Your task to perform on an android device: create a new album in the google photos Image 0: 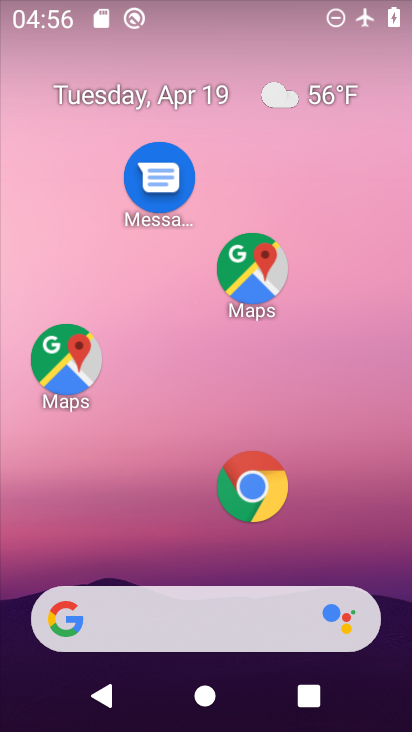
Step 0: drag from (263, 543) to (302, 111)
Your task to perform on an android device: create a new album in the google photos Image 1: 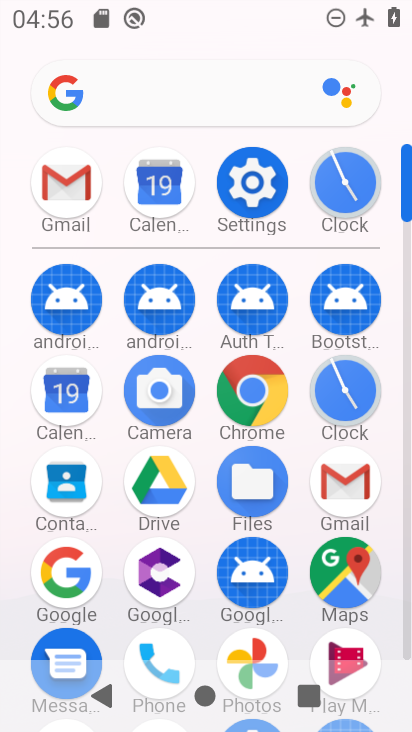
Step 1: drag from (202, 513) to (214, 302)
Your task to perform on an android device: create a new album in the google photos Image 2: 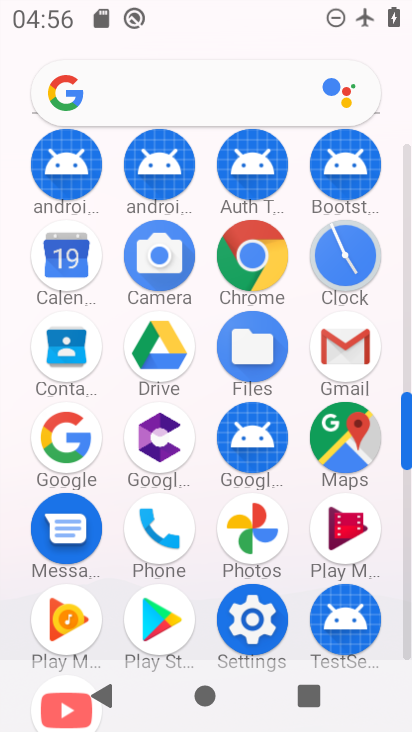
Step 2: click (264, 529)
Your task to perform on an android device: create a new album in the google photos Image 3: 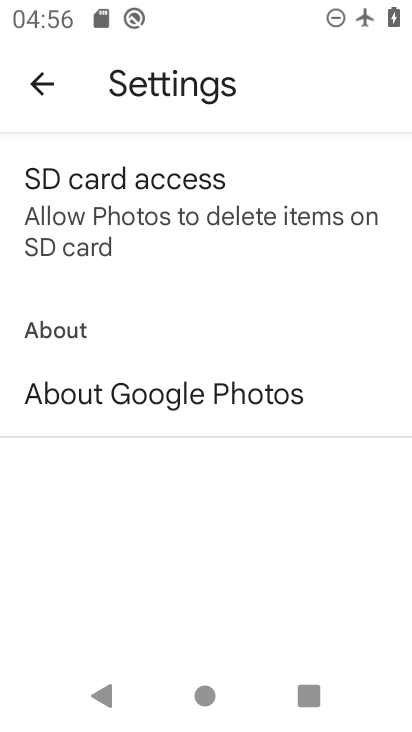
Step 3: click (32, 92)
Your task to perform on an android device: create a new album in the google photos Image 4: 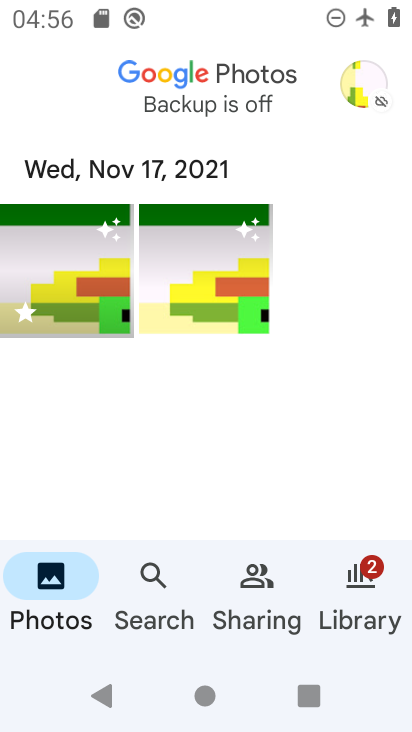
Step 4: click (369, 597)
Your task to perform on an android device: create a new album in the google photos Image 5: 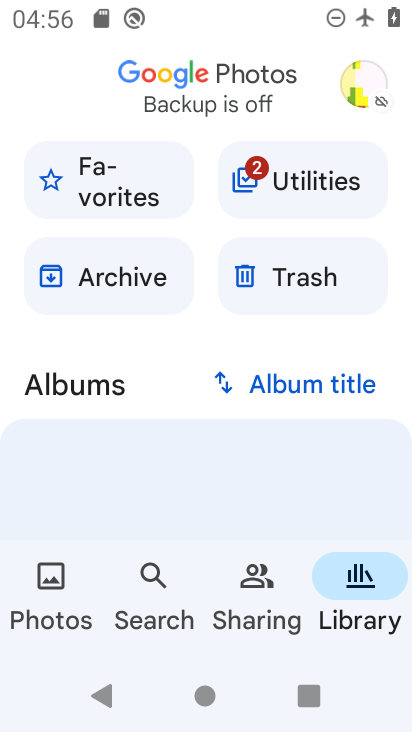
Step 5: drag from (287, 497) to (332, 192)
Your task to perform on an android device: create a new album in the google photos Image 6: 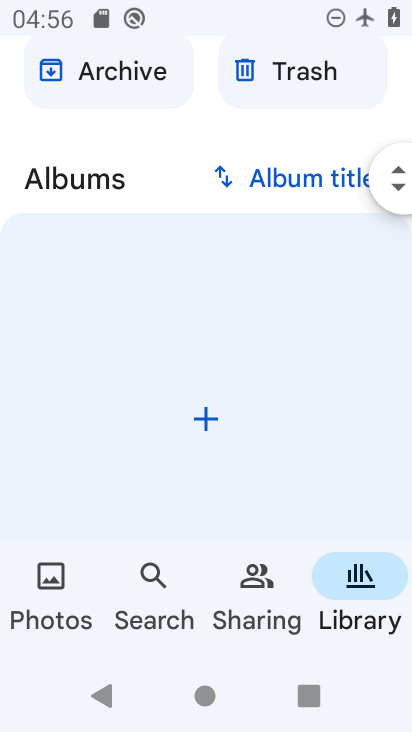
Step 6: click (210, 398)
Your task to perform on an android device: create a new album in the google photos Image 7: 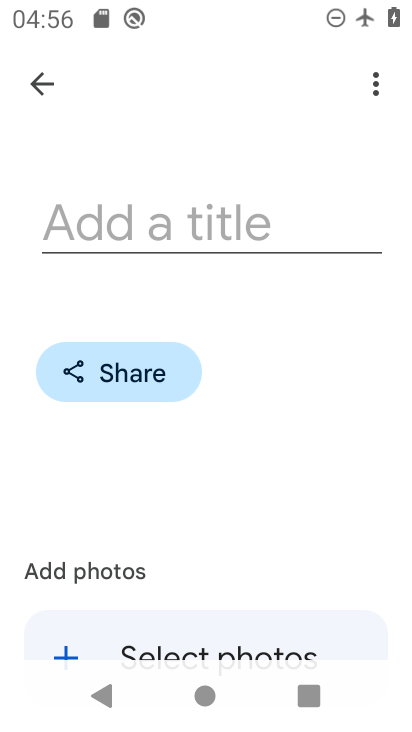
Step 7: click (213, 222)
Your task to perform on an android device: create a new album in the google photos Image 8: 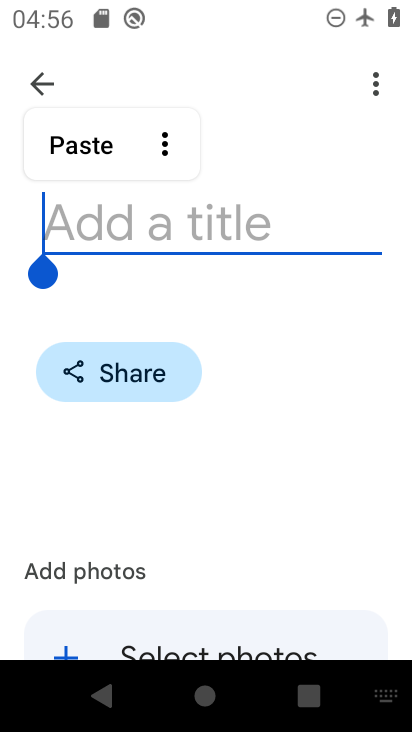
Step 8: type "yrytrdfuyf"
Your task to perform on an android device: create a new album in the google photos Image 9: 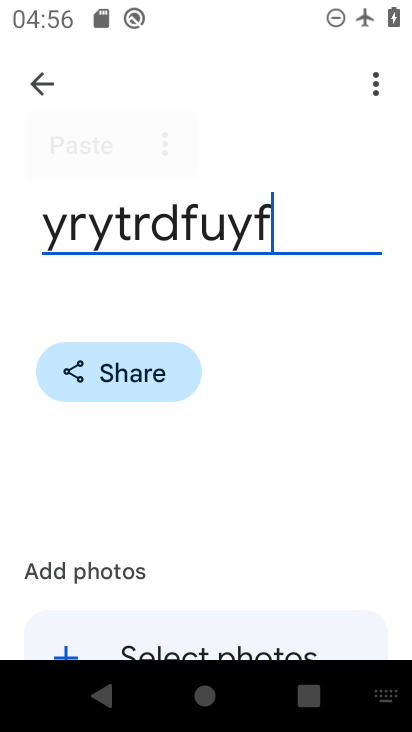
Step 9: type ""
Your task to perform on an android device: create a new album in the google photos Image 10: 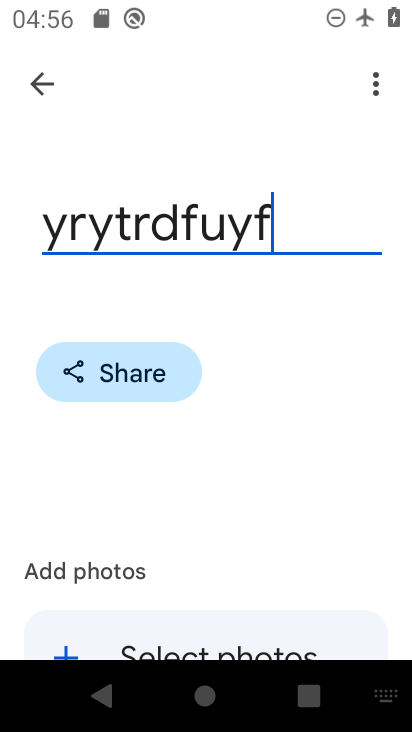
Step 10: drag from (217, 584) to (286, 247)
Your task to perform on an android device: create a new album in the google photos Image 11: 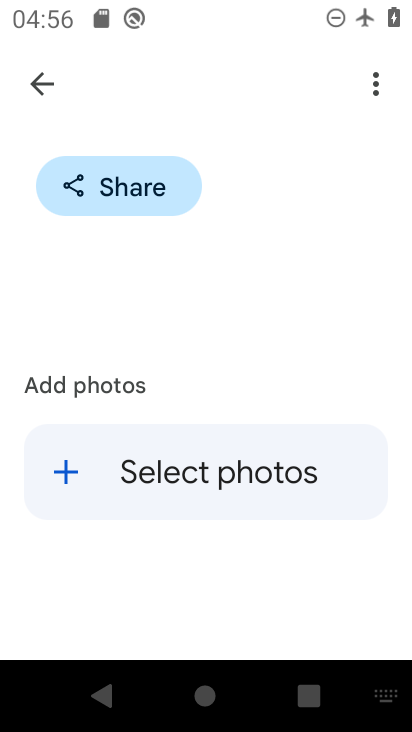
Step 11: click (209, 489)
Your task to perform on an android device: create a new album in the google photos Image 12: 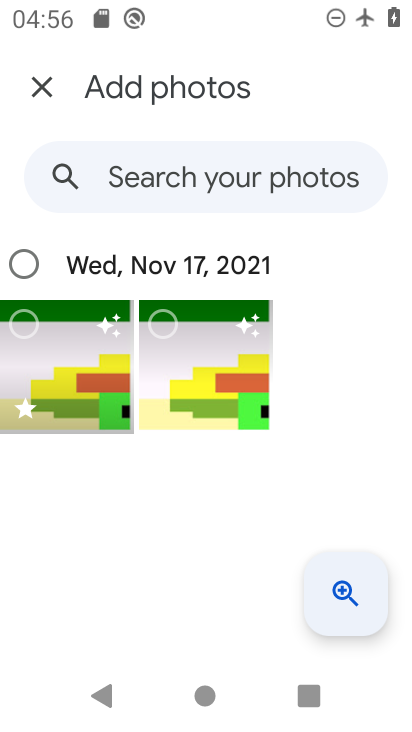
Step 12: click (26, 346)
Your task to perform on an android device: create a new album in the google photos Image 13: 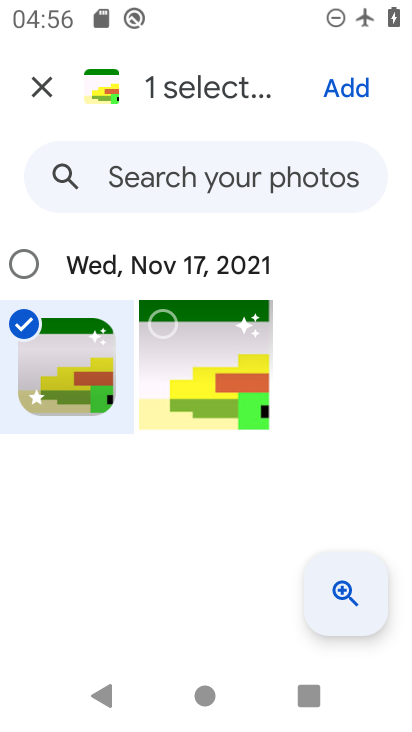
Step 13: click (359, 85)
Your task to perform on an android device: create a new album in the google photos Image 14: 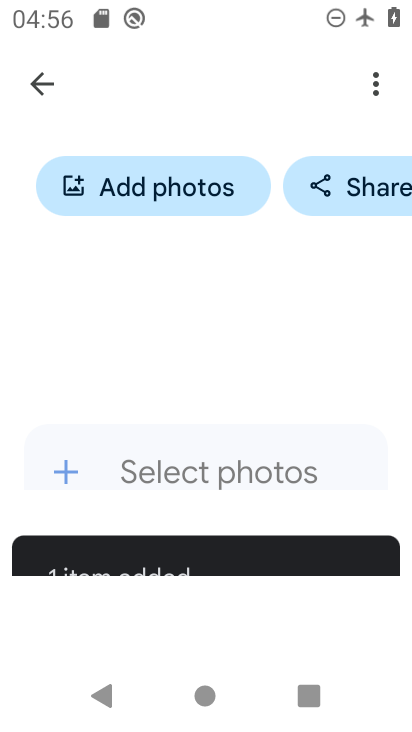
Step 14: click (375, 94)
Your task to perform on an android device: create a new album in the google photos Image 15: 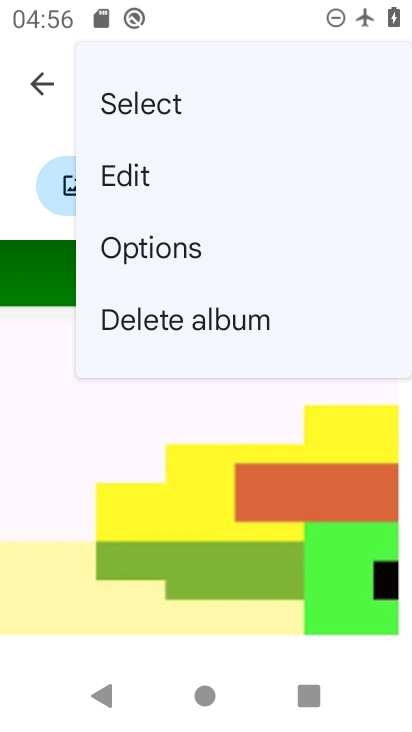
Step 15: task complete